Your task to perform on an android device: Open network settings Image 0: 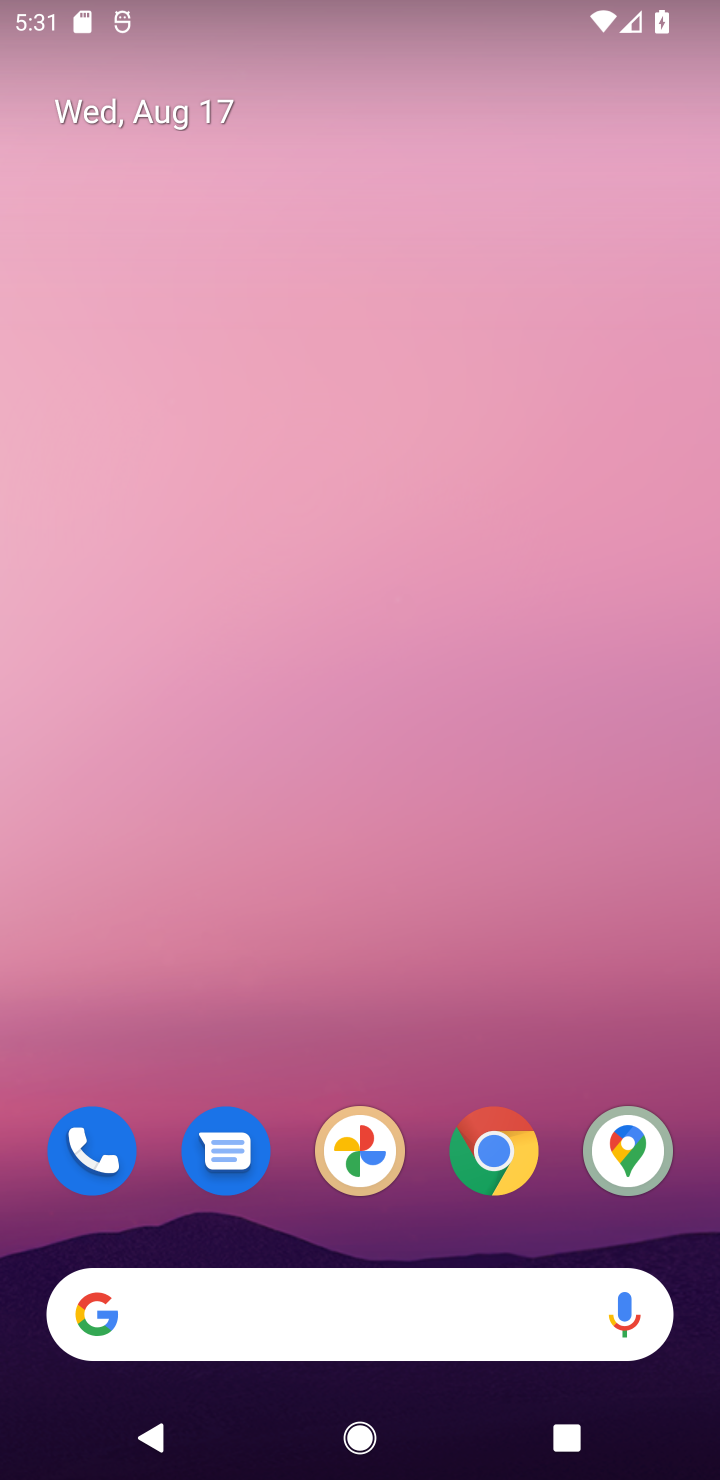
Step 0: drag from (408, 1218) to (488, 325)
Your task to perform on an android device: Open network settings Image 1: 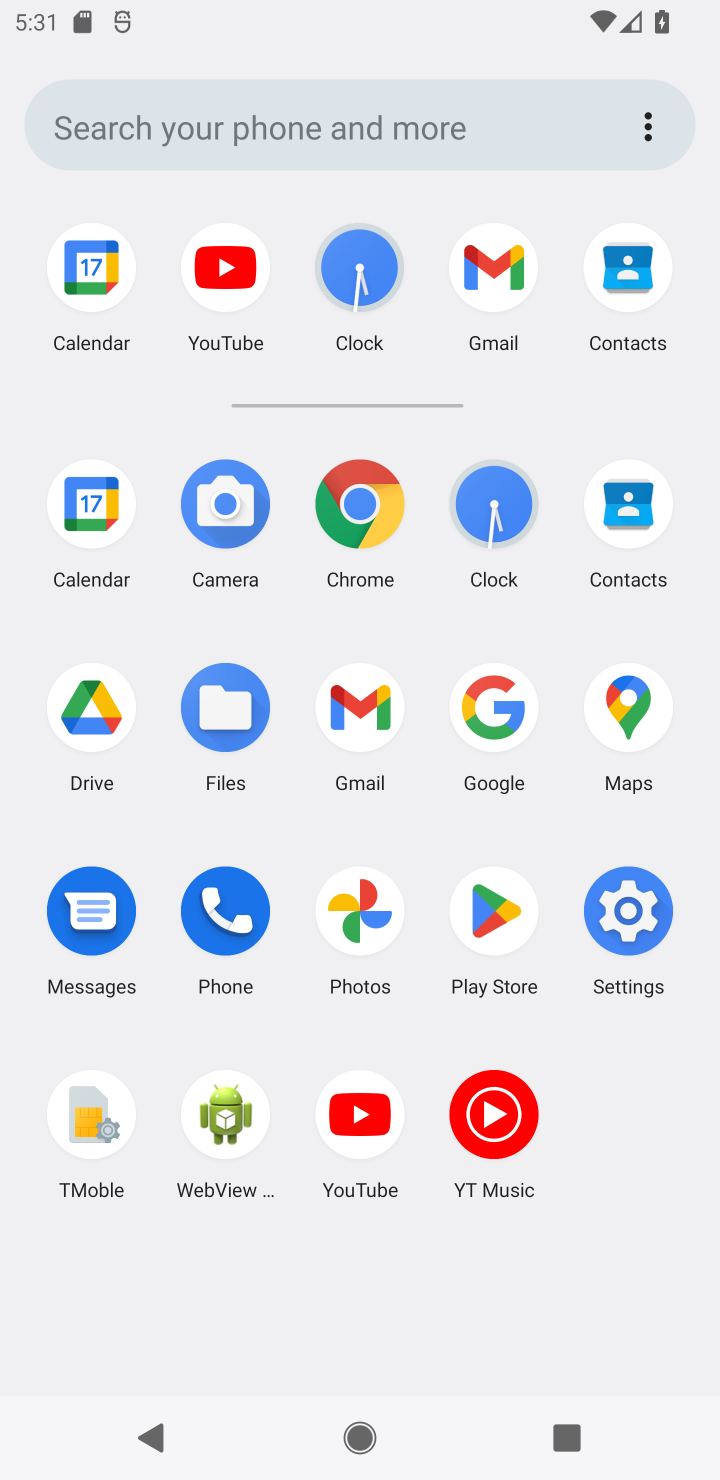
Step 1: click (633, 935)
Your task to perform on an android device: Open network settings Image 2: 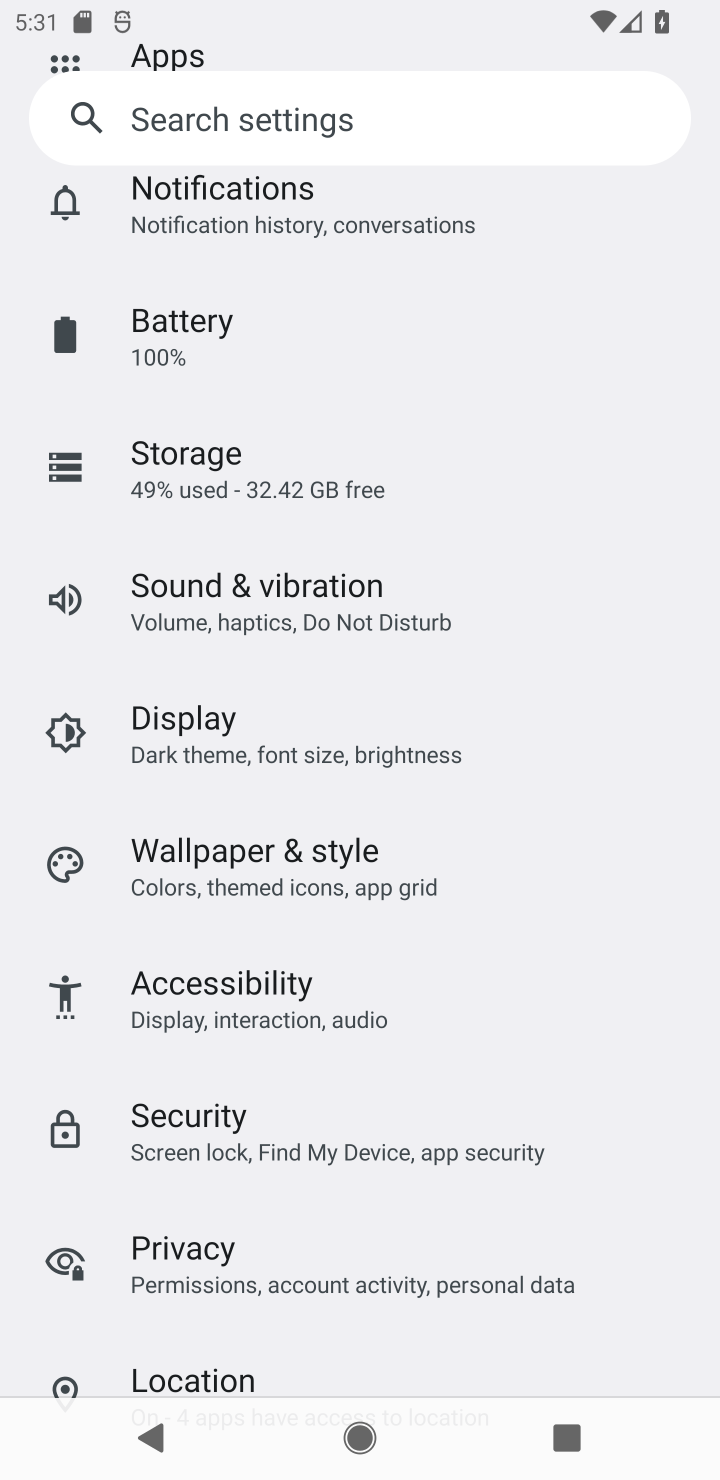
Step 2: drag from (397, 349) to (456, 1089)
Your task to perform on an android device: Open network settings Image 3: 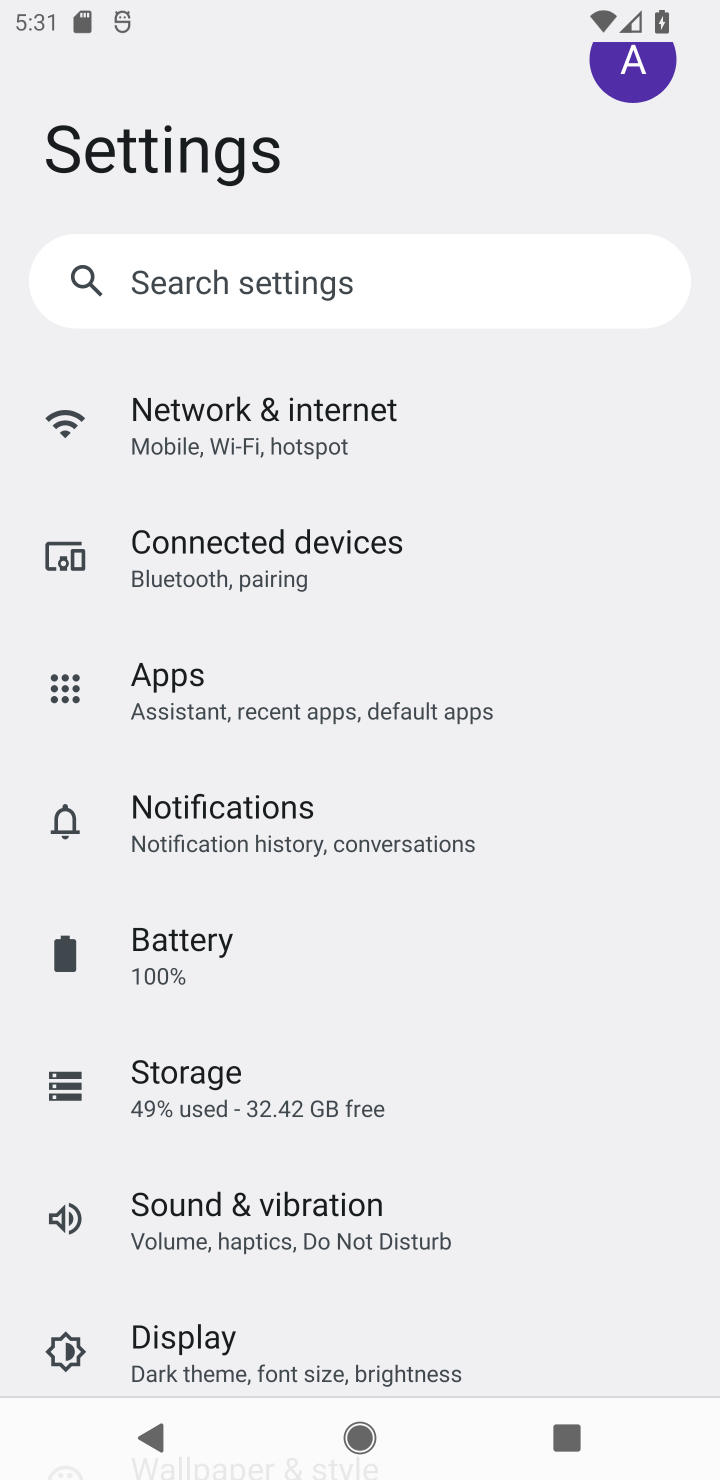
Step 3: drag from (392, 322) to (369, 748)
Your task to perform on an android device: Open network settings Image 4: 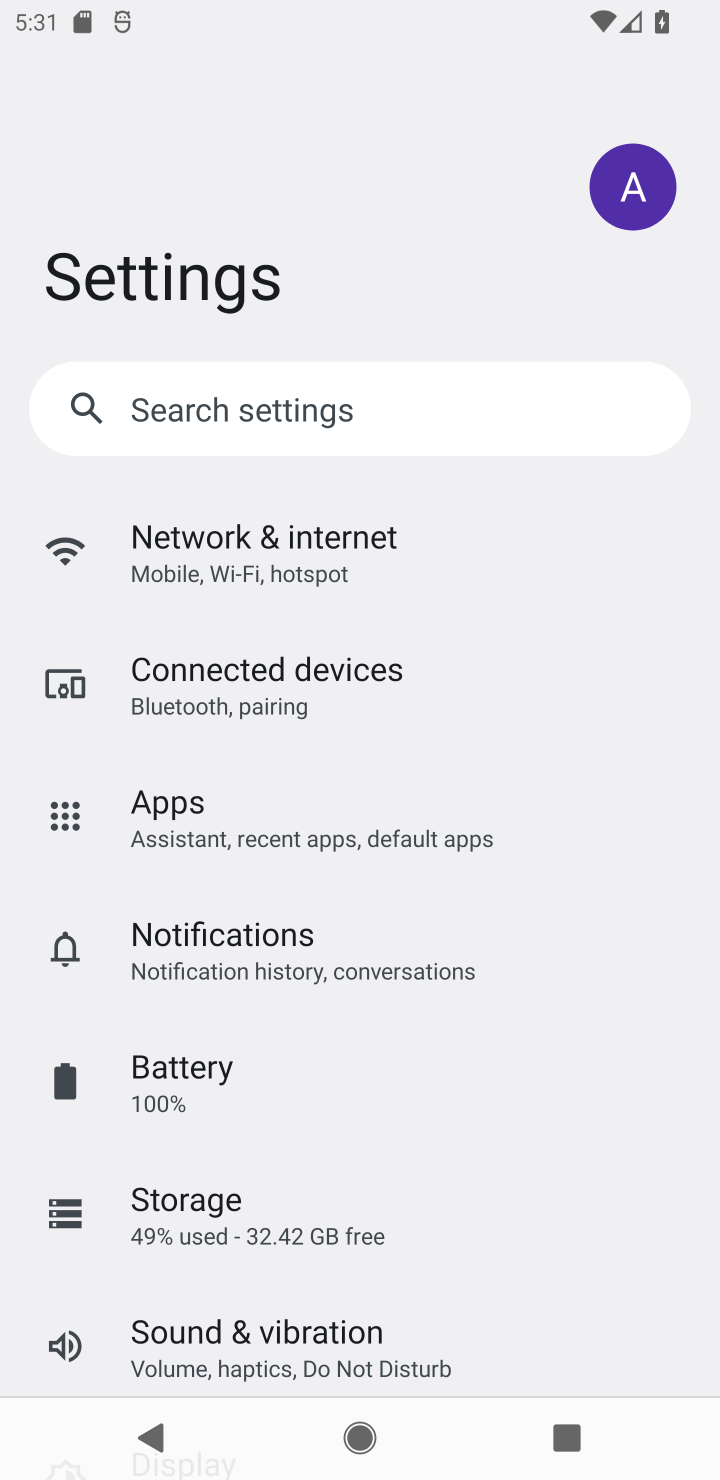
Step 4: click (353, 580)
Your task to perform on an android device: Open network settings Image 5: 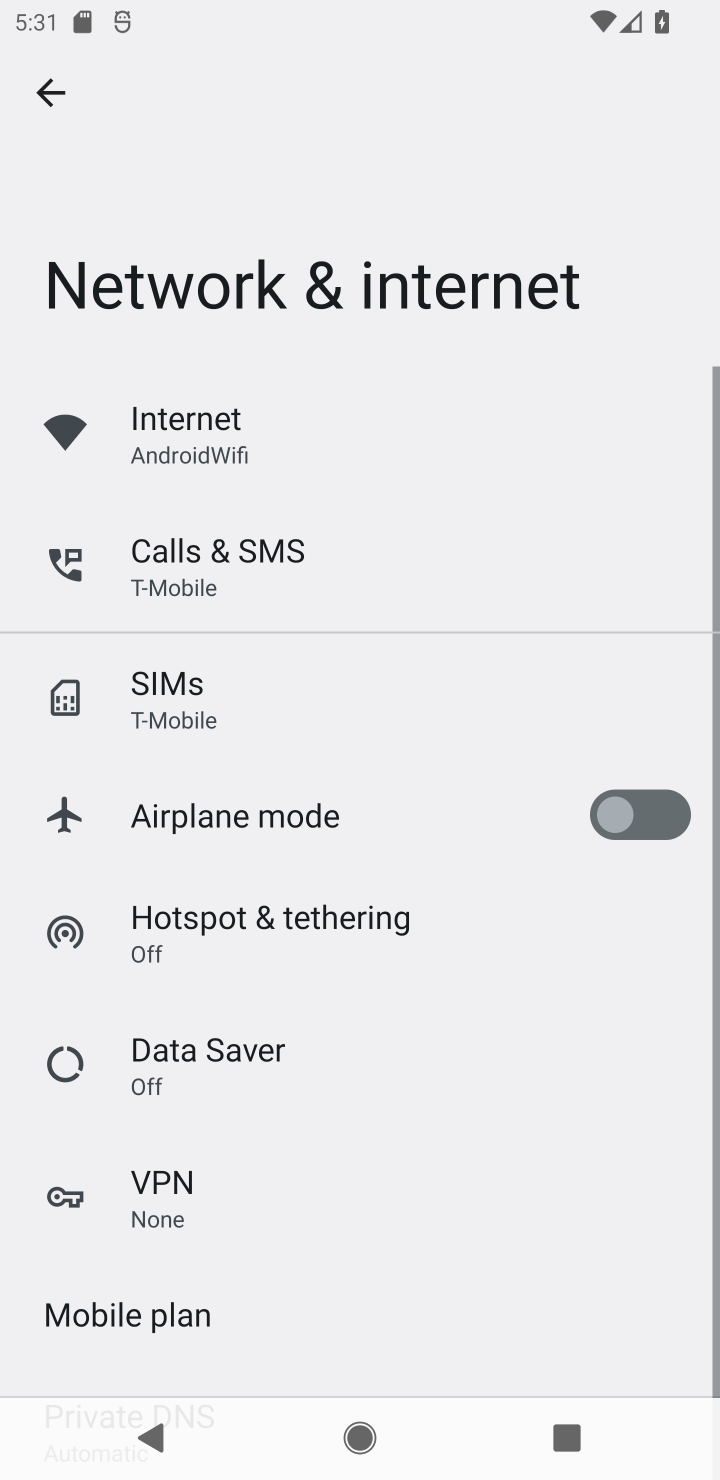
Step 5: task complete